Your task to perform on an android device: Open my contact list Image 0: 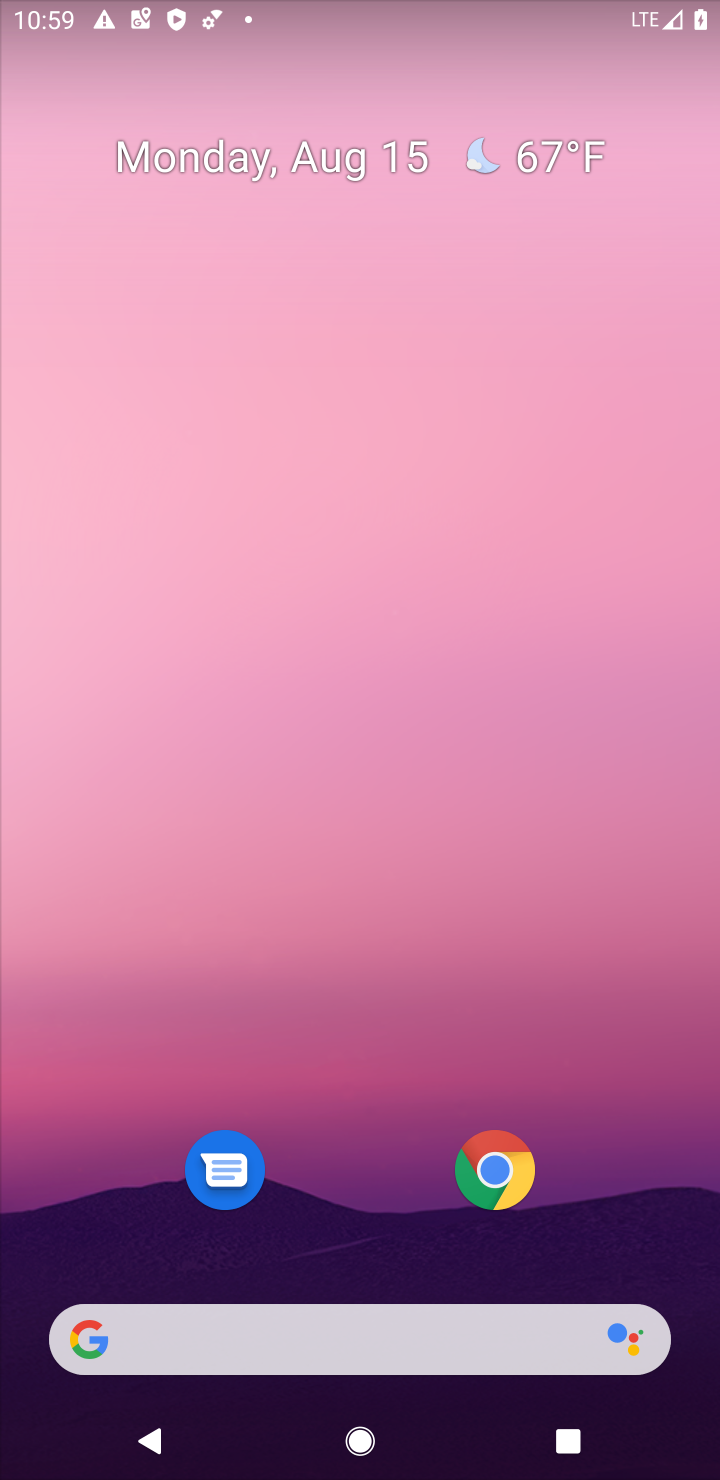
Step 0: drag from (362, 1160) to (381, 2)
Your task to perform on an android device: Open my contact list Image 1: 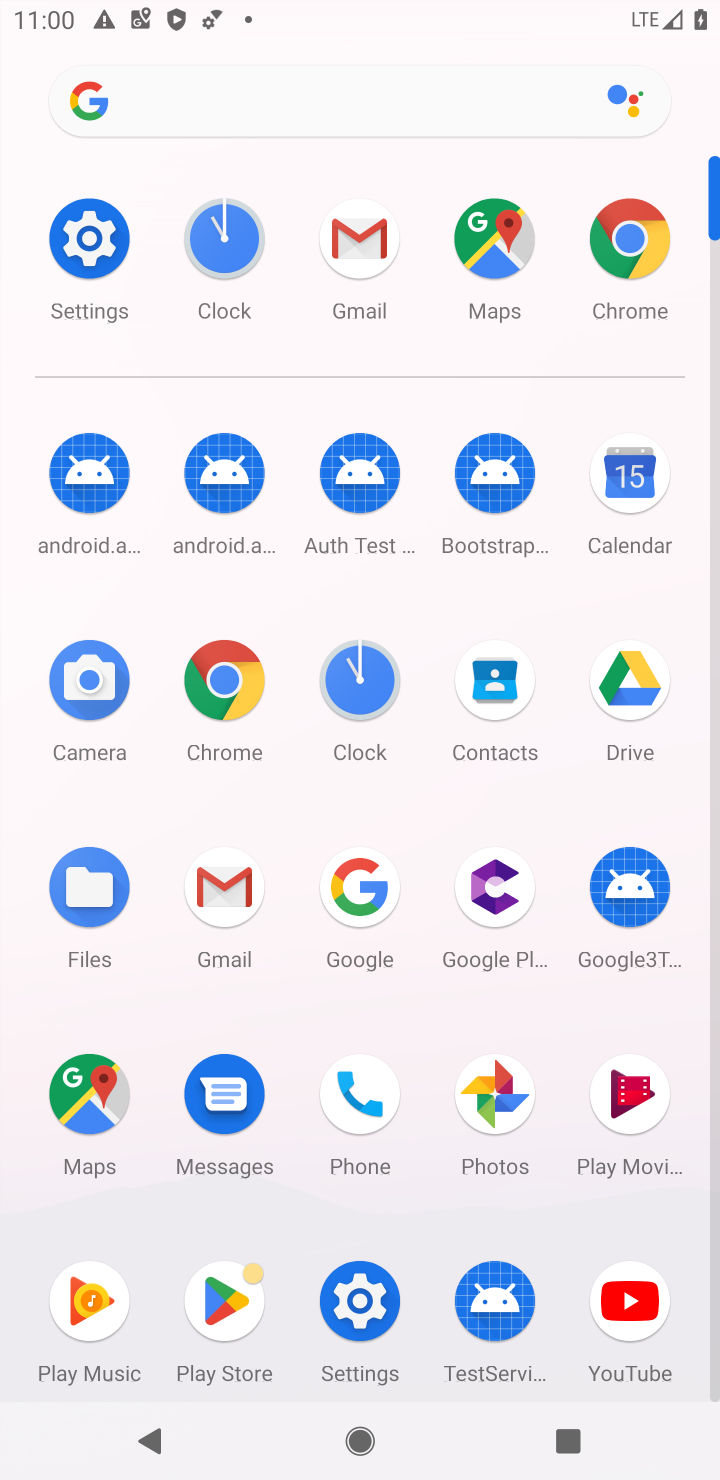
Step 1: click (485, 675)
Your task to perform on an android device: Open my contact list Image 2: 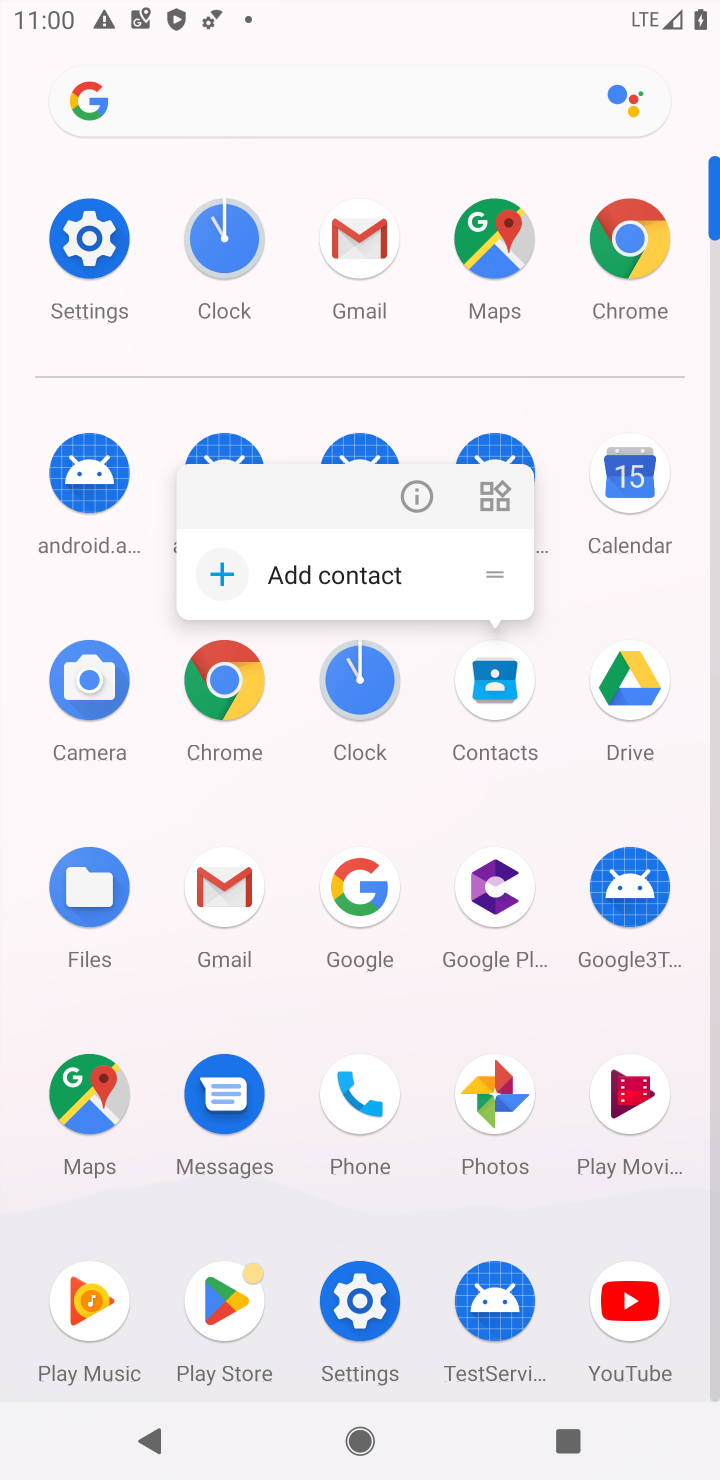
Step 2: click (494, 665)
Your task to perform on an android device: Open my contact list Image 3: 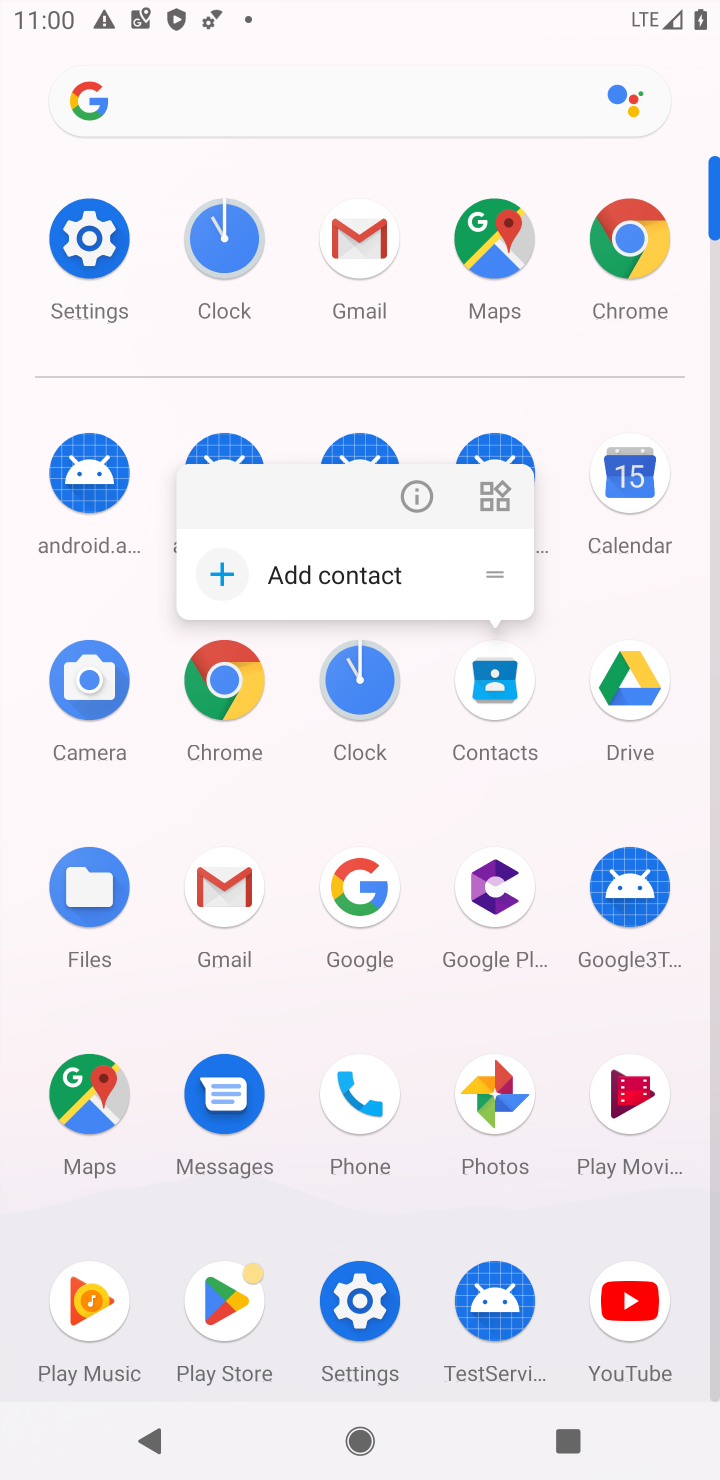
Step 3: click (491, 676)
Your task to perform on an android device: Open my contact list Image 4: 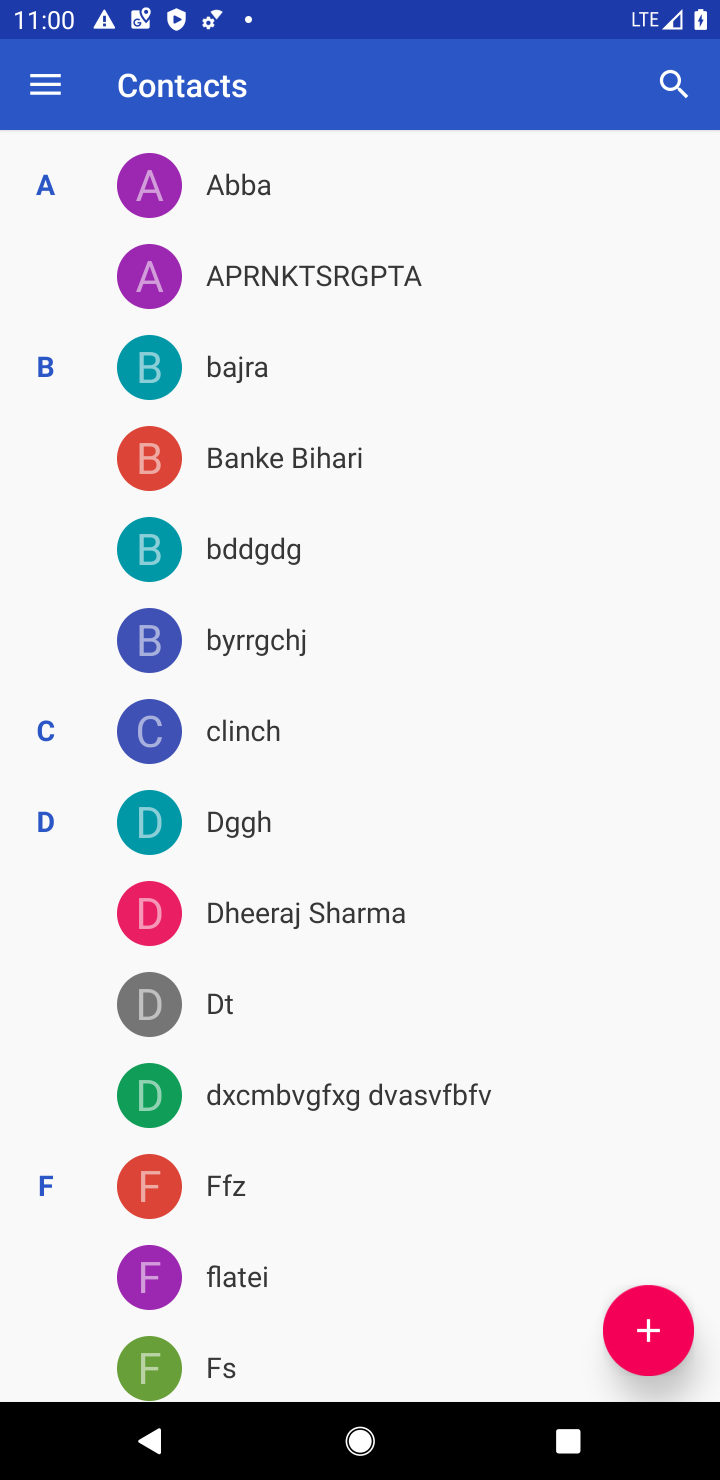
Step 4: drag from (289, 1244) to (326, 363)
Your task to perform on an android device: Open my contact list Image 5: 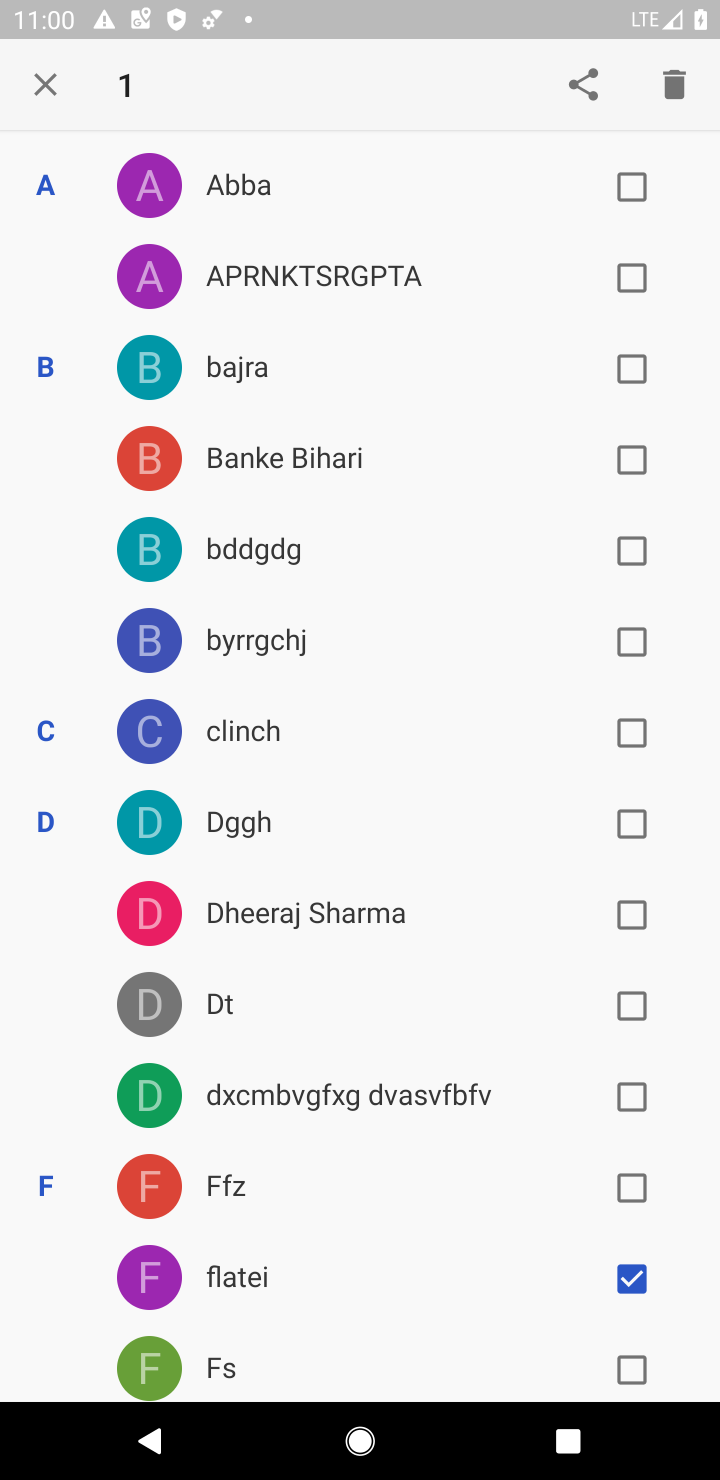
Step 5: click (32, 83)
Your task to perform on an android device: Open my contact list Image 6: 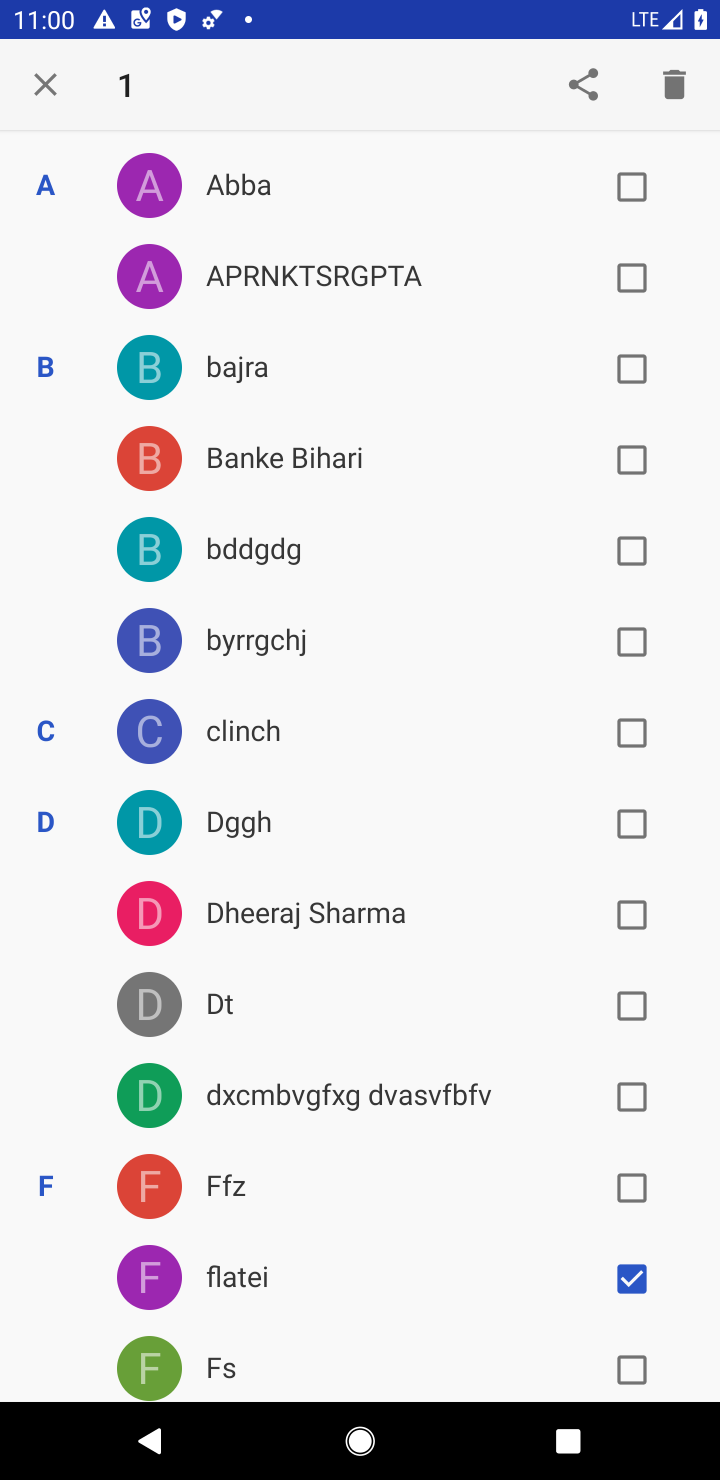
Step 6: click (45, 91)
Your task to perform on an android device: Open my contact list Image 7: 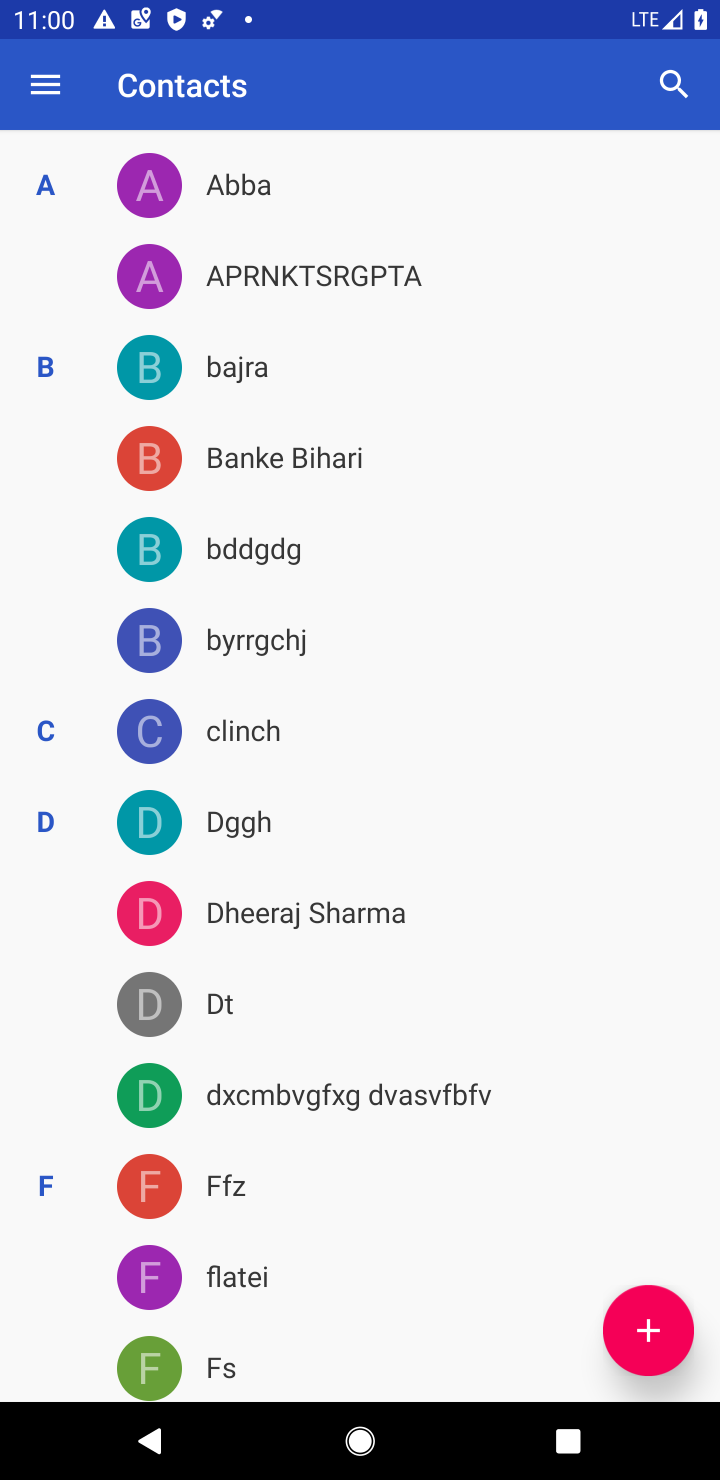
Step 7: task complete